Your task to perform on an android device: Go to Google maps Image 0: 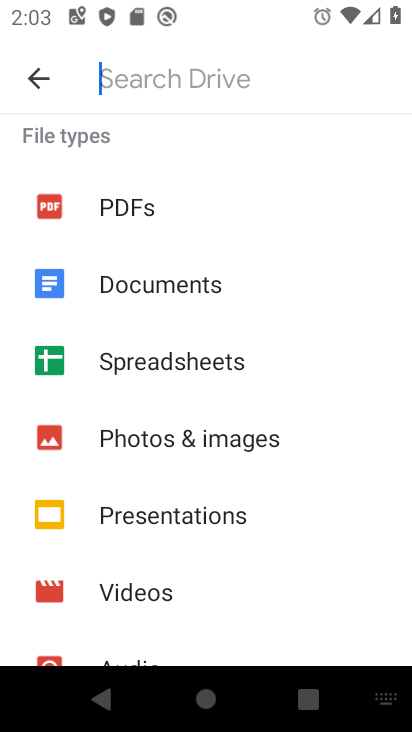
Step 0: press home button
Your task to perform on an android device: Go to Google maps Image 1: 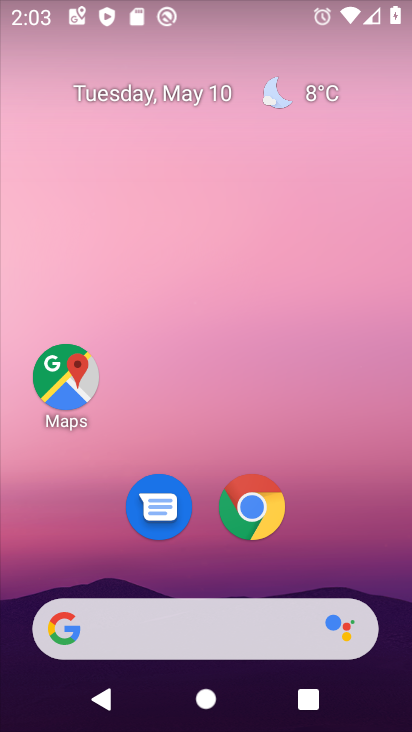
Step 1: drag from (220, 726) to (223, 218)
Your task to perform on an android device: Go to Google maps Image 2: 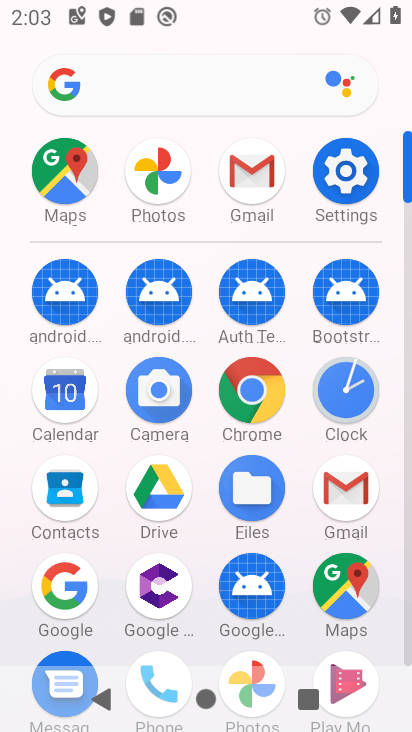
Step 2: click (344, 590)
Your task to perform on an android device: Go to Google maps Image 3: 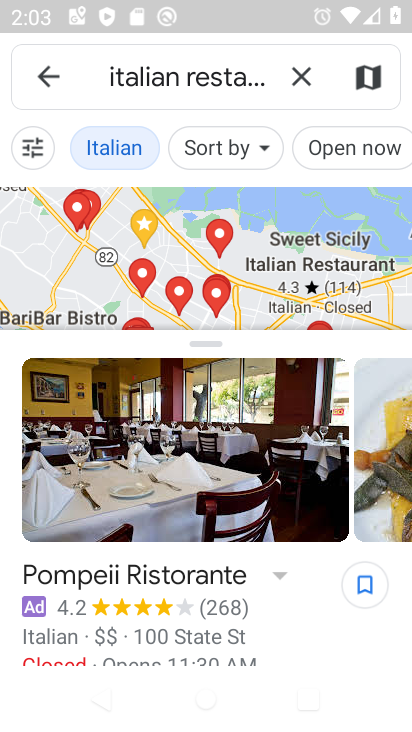
Step 3: task complete